Your task to perform on an android device: delete browsing data in the chrome app Image 0: 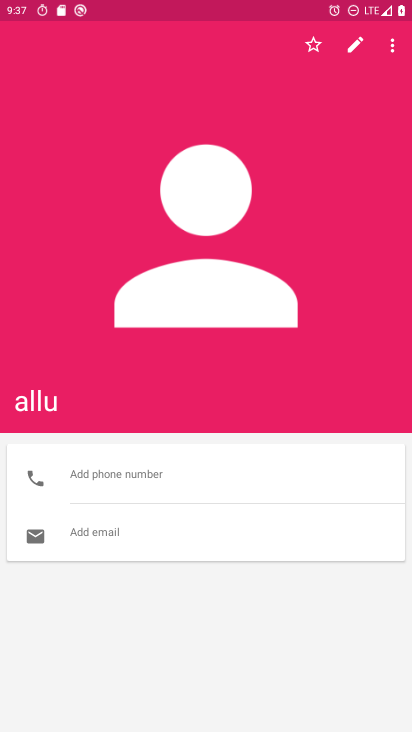
Step 0: press home button
Your task to perform on an android device: delete browsing data in the chrome app Image 1: 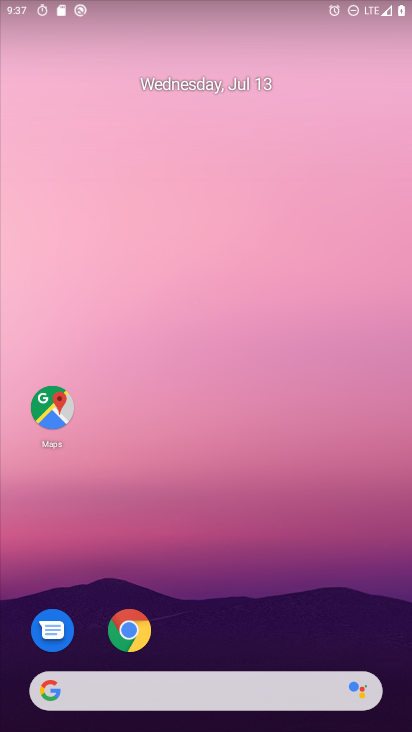
Step 1: drag from (395, 696) to (223, 40)
Your task to perform on an android device: delete browsing data in the chrome app Image 2: 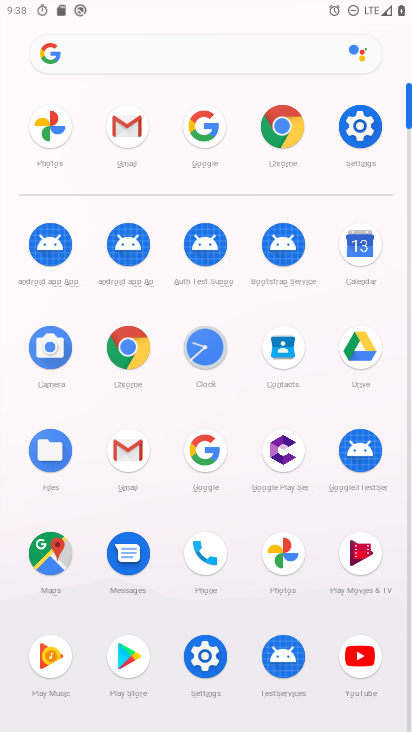
Step 2: click (110, 339)
Your task to perform on an android device: delete browsing data in the chrome app Image 3: 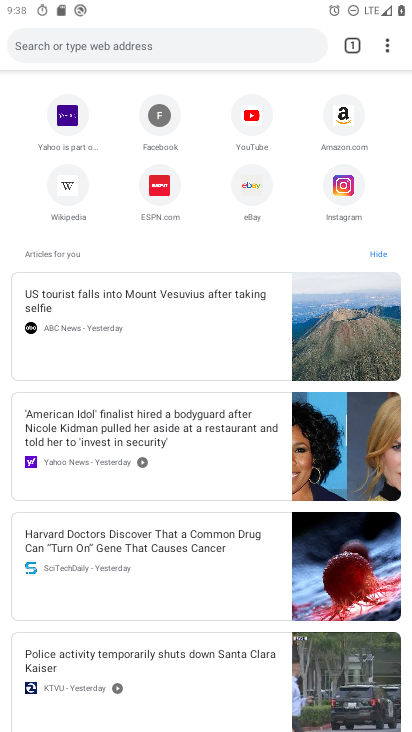
Step 3: click (388, 44)
Your task to perform on an android device: delete browsing data in the chrome app Image 4: 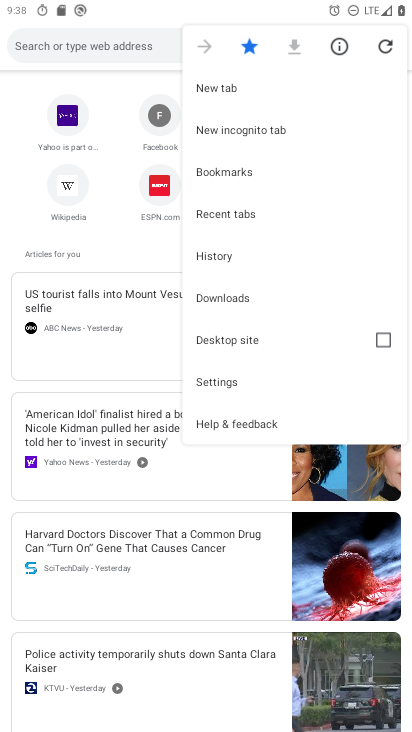
Step 4: click (242, 262)
Your task to perform on an android device: delete browsing data in the chrome app Image 5: 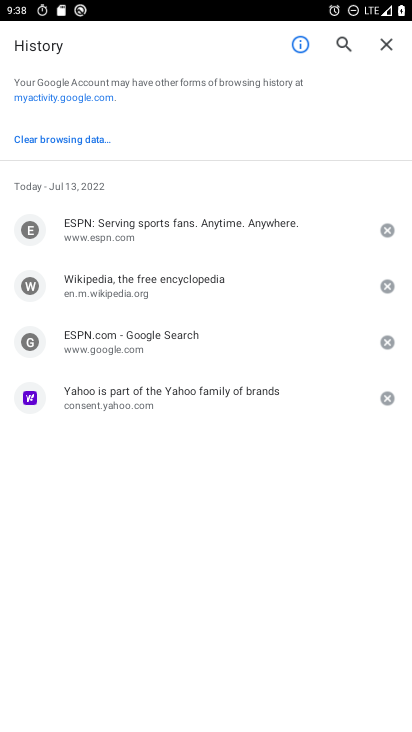
Step 5: click (48, 138)
Your task to perform on an android device: delete browsing data in the chrome app Image 6: 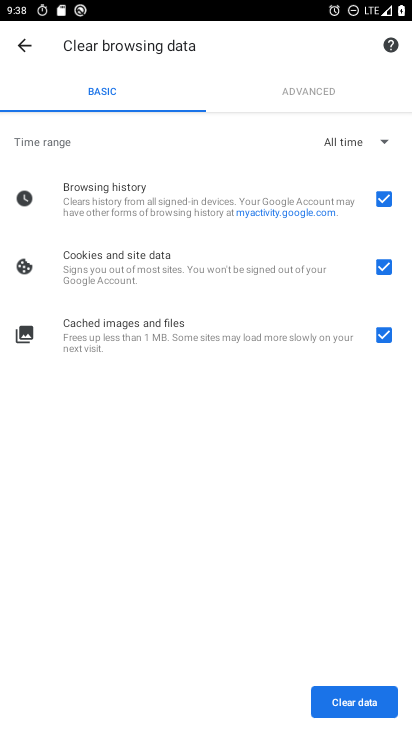
Step 6: click (338, 693)
Your task to perform on an android device: delete browsing data in the chrome app Image 7: 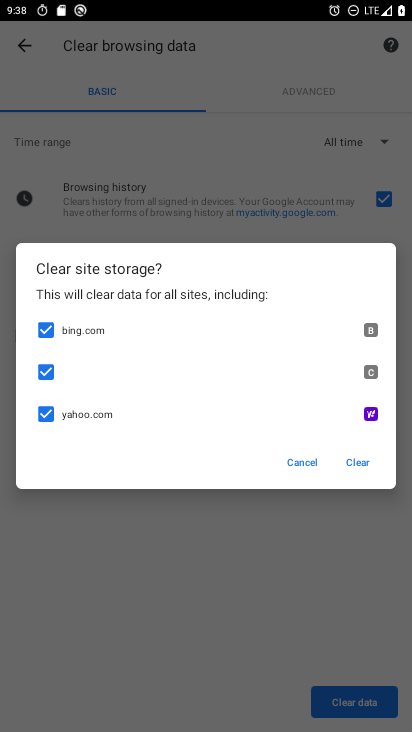
Step 7: click (354, 458)
Your task to perform on an android device: delete browsing data in the chrome app Image 8: 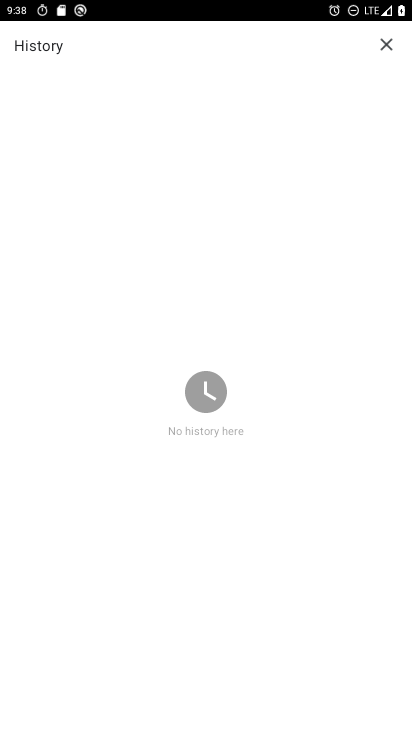
Step 8: task complete